Your task to perform on an android device: Open wifi settings Image 0: 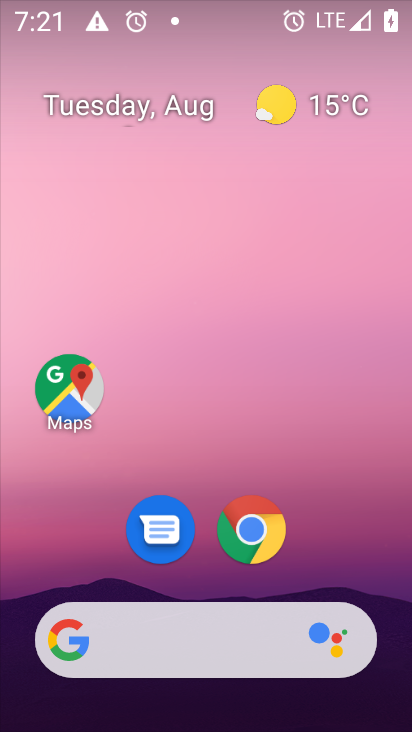
Step 0: press home button
Your task to perform on an android device: Open wifi settings Image 1: 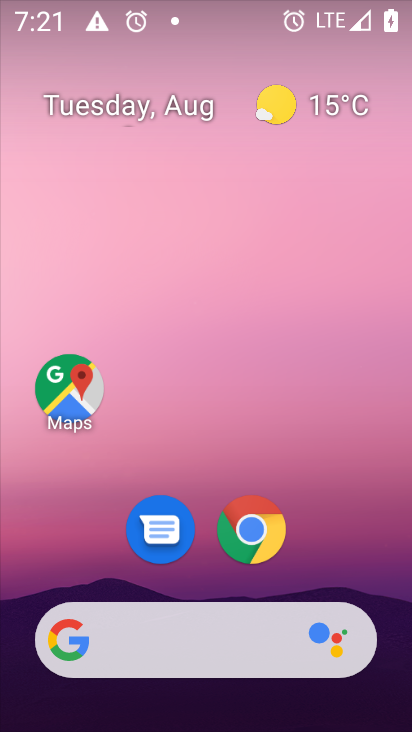
Step 1: drag from (229, 148) to (241, 72)
Your task to perform on an android device: Open wifi settings Image 2: 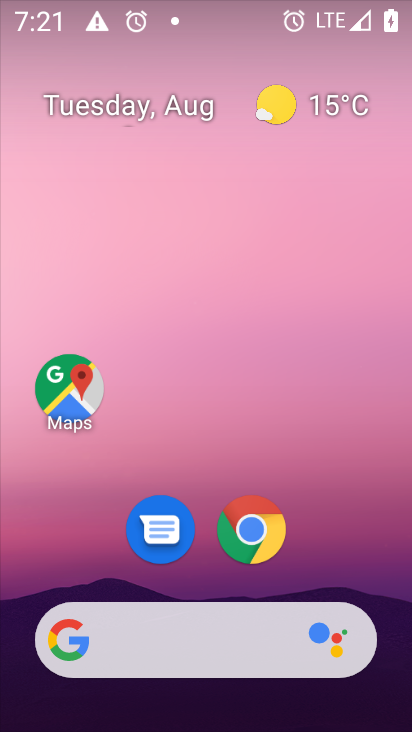
Step 2: drag from (216, 553) to (254, 104)
Your task to perform on an android device: Open wifi settings Image 3: 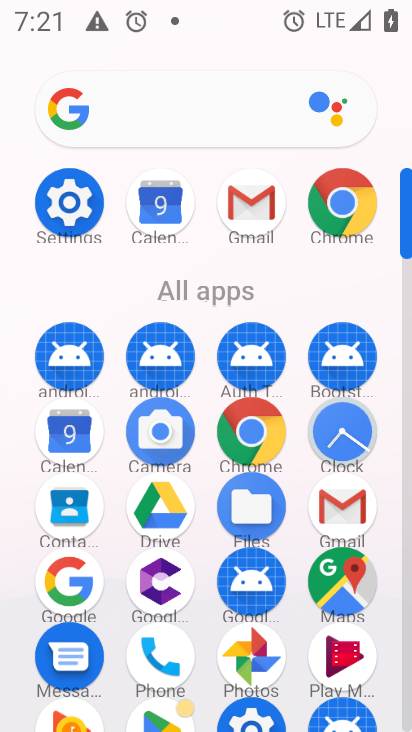
Step 3: click (70, 204)
Your task to perform on an android device: Open wifi settings Image 4: 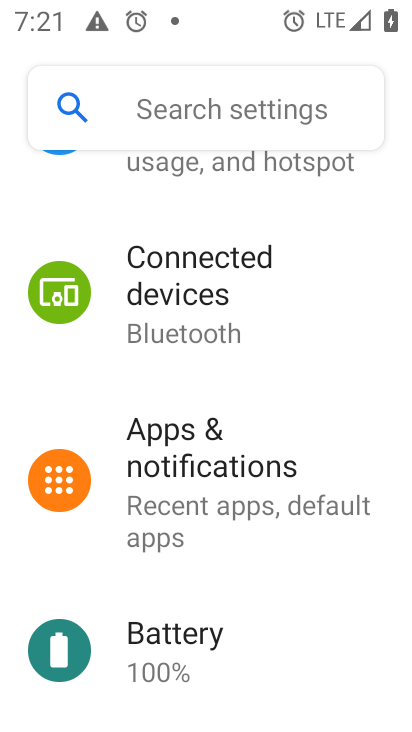
Step 4: drag from (196, 234) to (228, 726)
Your task to perform on an android device: Open wifi settings Image 5: 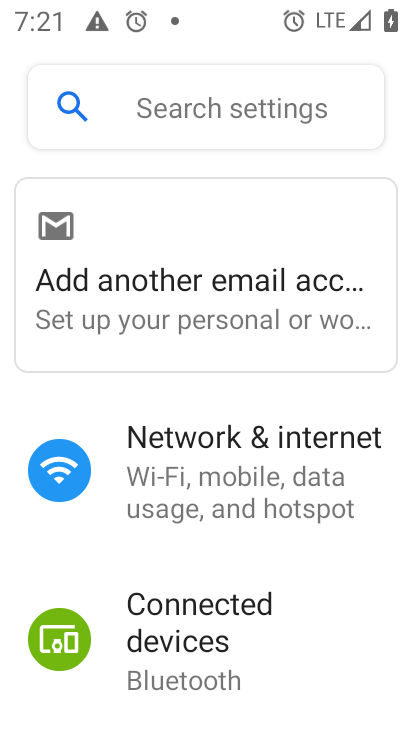
Step 5: click (212, 472)
Your task to perform on an android device: Open wifi settings Image 6: 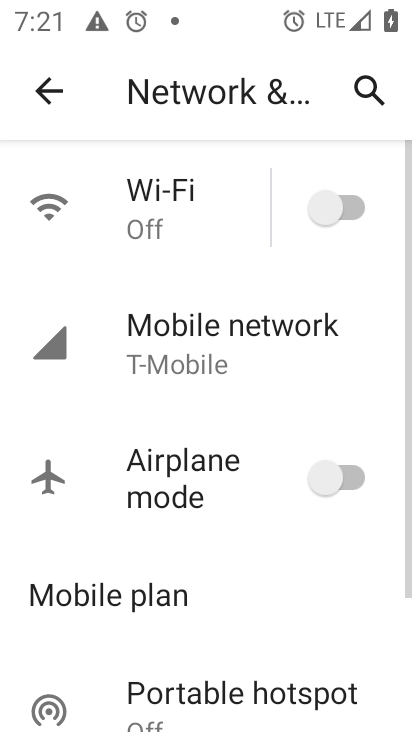
Step 6: click (167, 202)
Your task to perform on an android device: Open wifi settings Image 7: 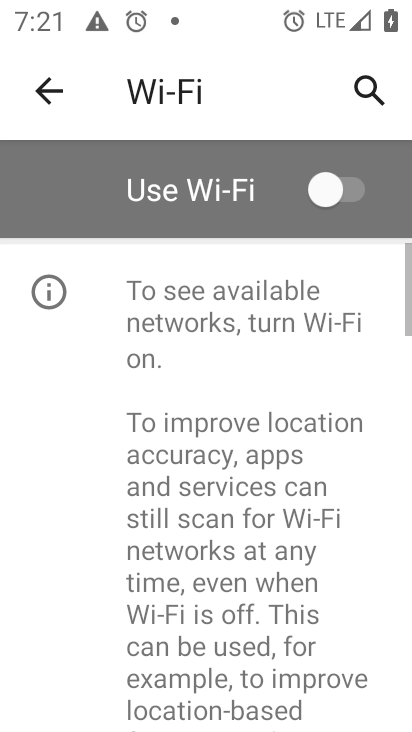
Step 7: click (327, 184)
Your task to perform on an android device: Open wifi settings Image 8: 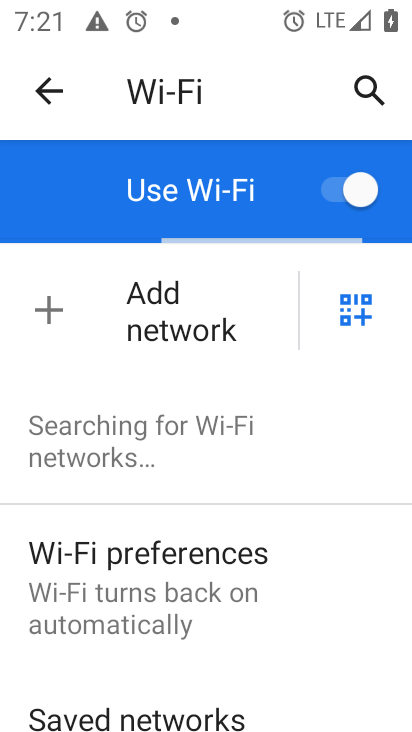
Step 8: task complete